Your task to perform on an android device: Turn on the flashlight Image 0: 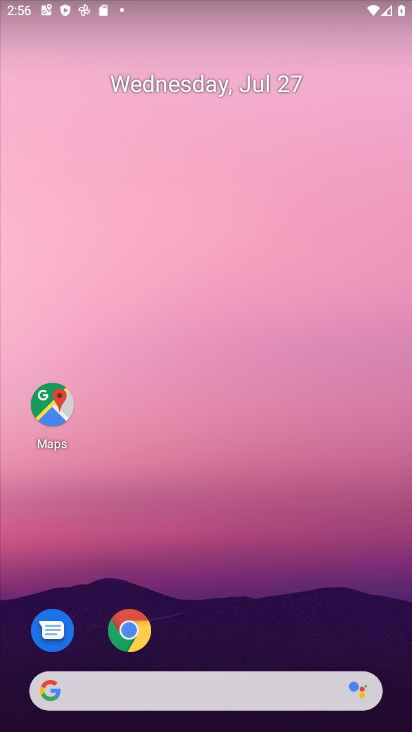
Step 0: drag from (380, 653) to (291, 178)
Your task to perform on an android device: Turn on the flashlight Image 1: 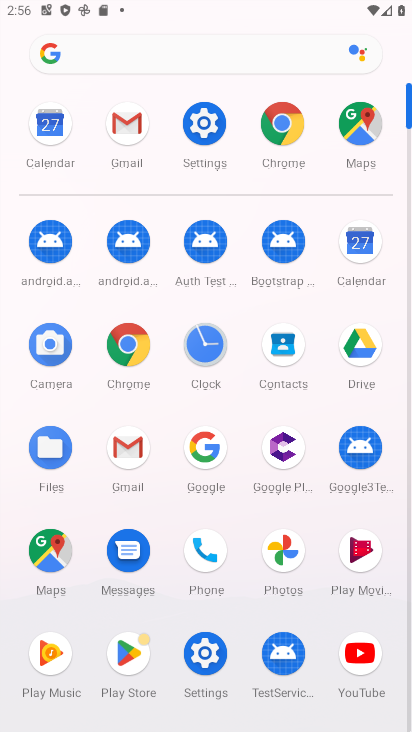
Step 1: click (197, 130)
Your task to perform on an android device: Turn on the flashlight Image 2: 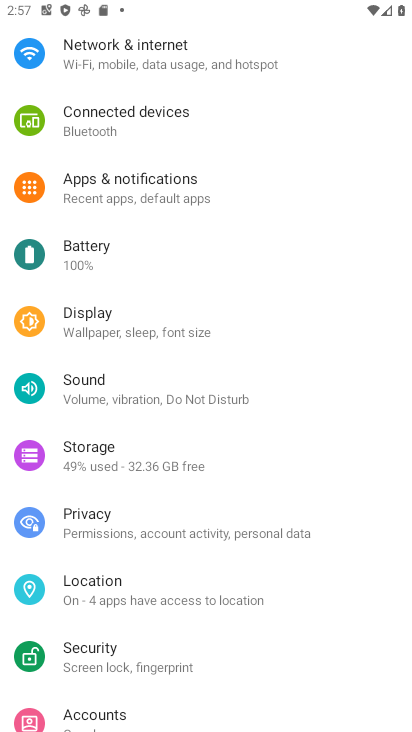
Step 2: click (82, 324)
Your task to perform on an android device: Turn on the flashlight Image 3: 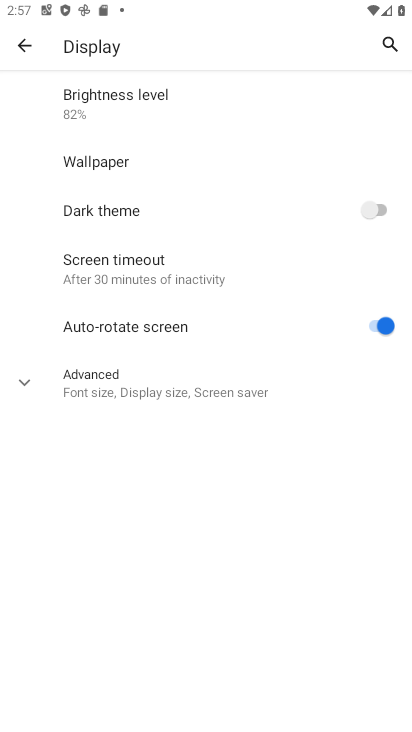
Step 3: click (31, 383)
Your task to perform on an android device: Turn on the flashlight Image 4: 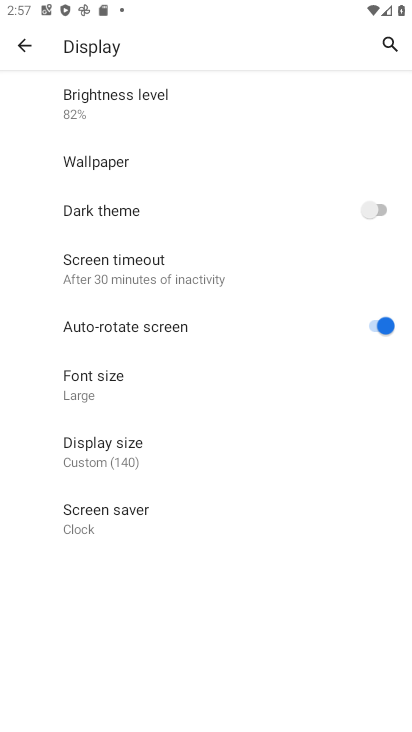
Step 4: task complete